Your task to perform on an android device: Turn off the flashlight Image 0: 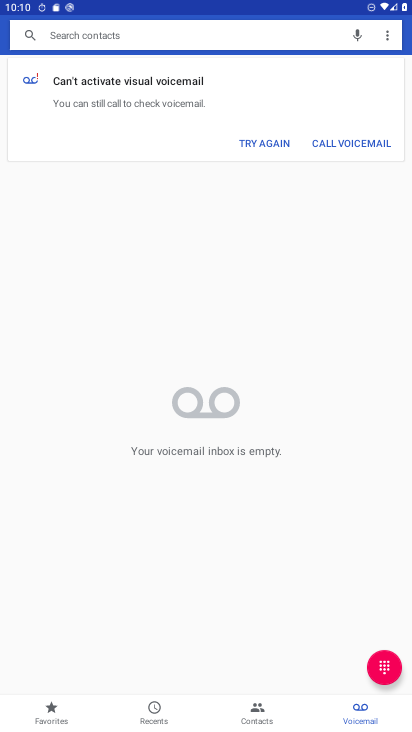
Step 0: press home button
Your task to perform on an android device: Turn off the flashlight Image 1: 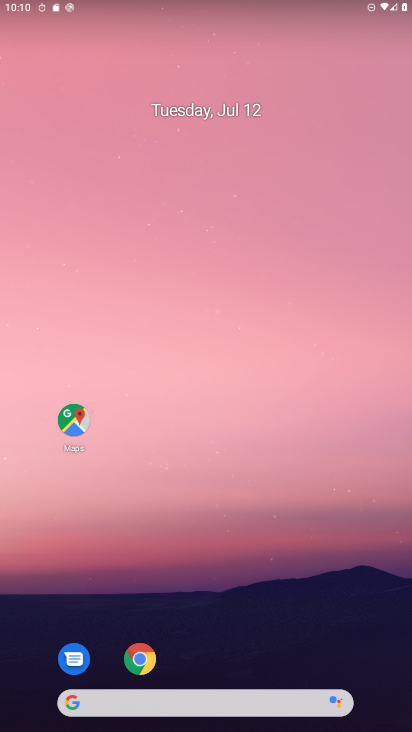
Step 1: click (223, 728)
Your task to perform on an android device: Turn off the flashlight Image 2: 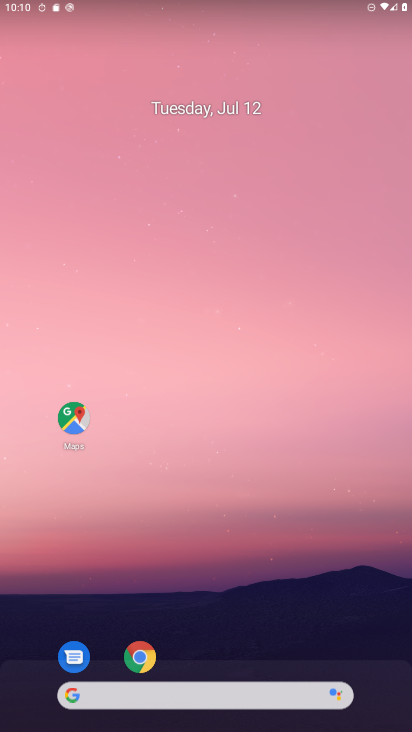
Step 2: drag from (227, 117) to (229, 26)
Your task to perform on an android device: Turn off the flashlight Image 3: 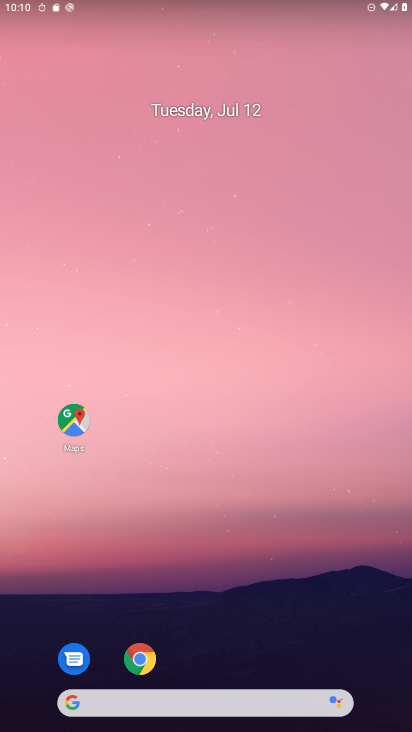
Step 3: drag from (206, 729) to (190, 582)
Your task to perform on an android device: Turn off the flashlight Image 4: 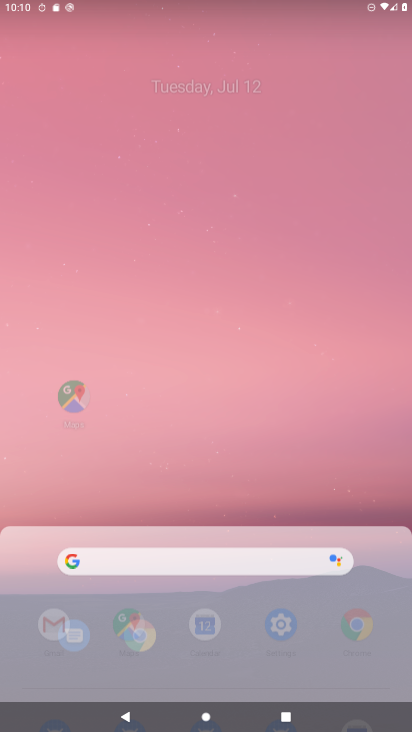
Step 4: click (166, 123)
Your task to perform on an android device: Turn off the flashlight Image 5: 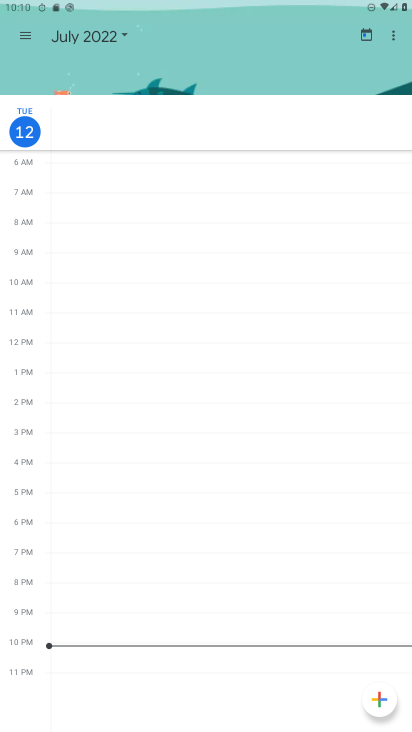
Step 5: press home button
Your task to perform on an android device: Turn off the flashlight Image 6: 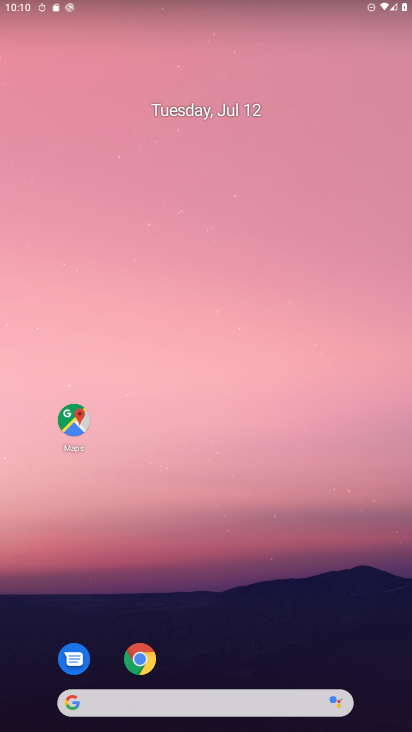
Step 6: drag from (273, 725) to (215, 181)
Your task to perform on an android device: Turn off the flashlight Image 7: 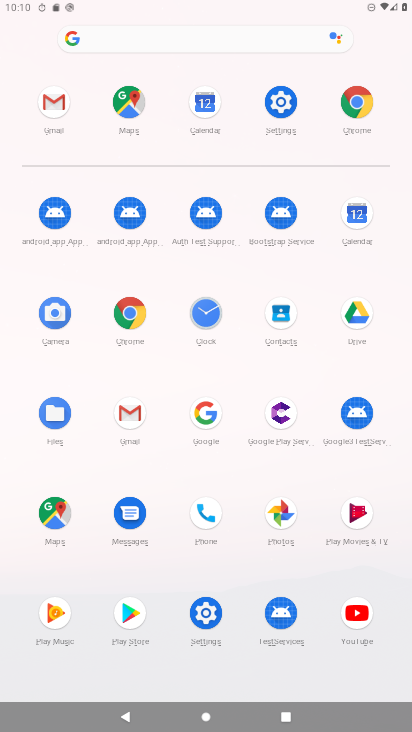
Step 7: click (283, 103)
Your task to perform on an android device: Turn off the flashlight Image 8: 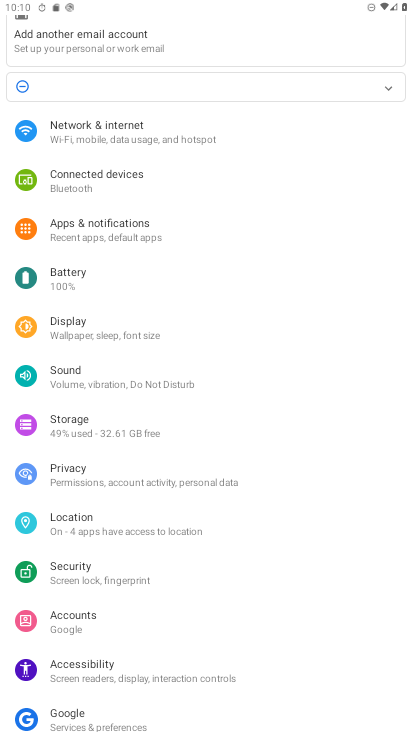
Step 8: task complete